Your task to perform on an android device: delete browsing data in the chrome app Image 0: 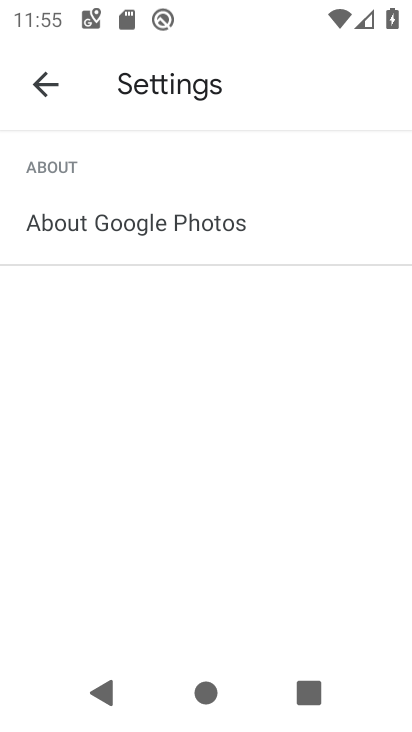
Step 0: press home button
Your task to perform on an android device: delete browsing data in the chrome app Image 1: 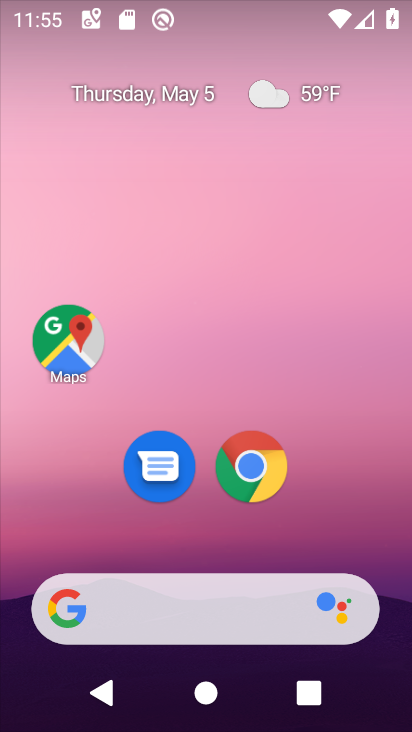
Step 1: click (269, 470)
Your task to perform on an android device: delete browsing data in the chrome app Image 2: 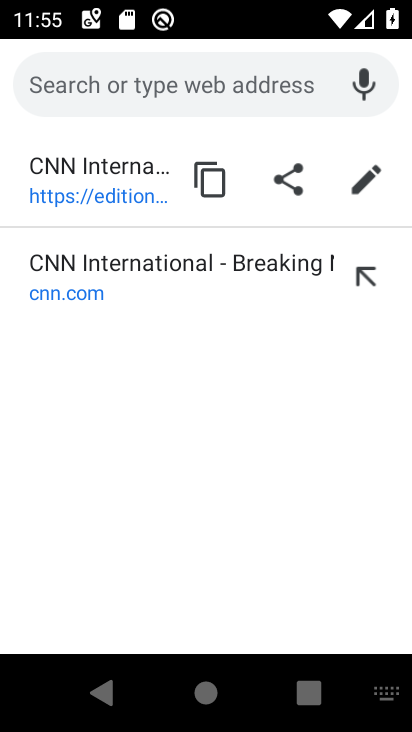
Step 2: press back button
Your task to perform on an android device: delete browsing data in the chrome app Image 3: 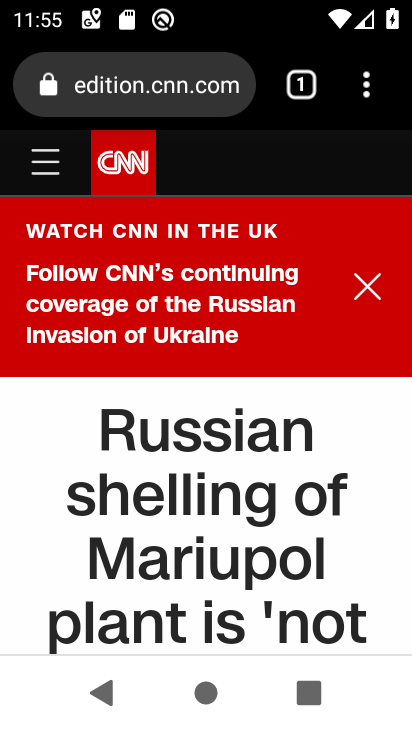
Step 3: drag from (364, 121) to (189, 486)
Your task to perform on an android device: delete browsing data in the chrome app Image 4: 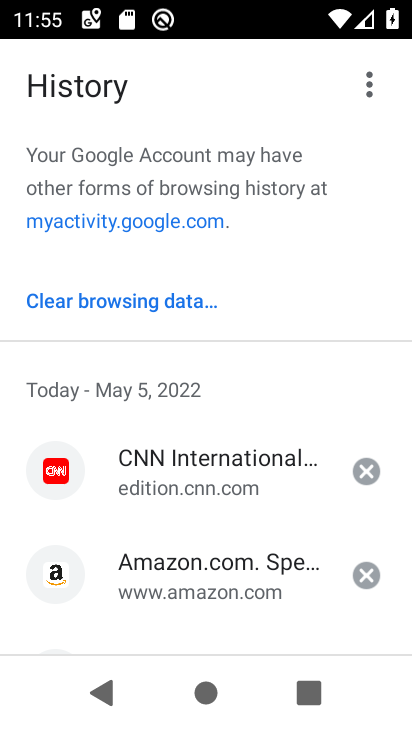
Step 4: click (164, 304)
Your task to perform on an android device: delete browsing data in the chrome app Image 5: 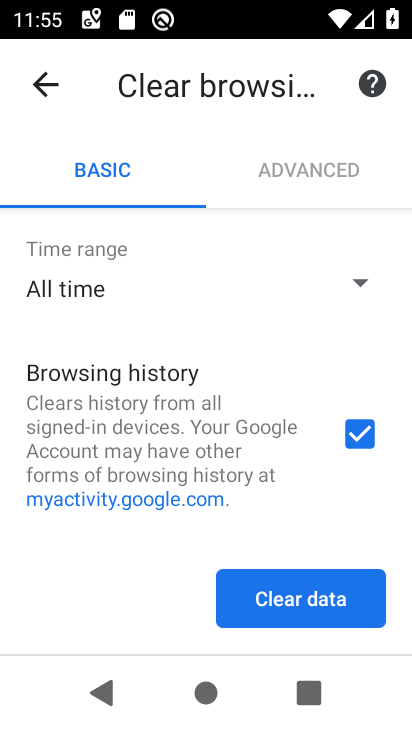
Step 5: click (316, 604)
Your task to perform on an android device: delete browsing data in the chrome app Image 6: 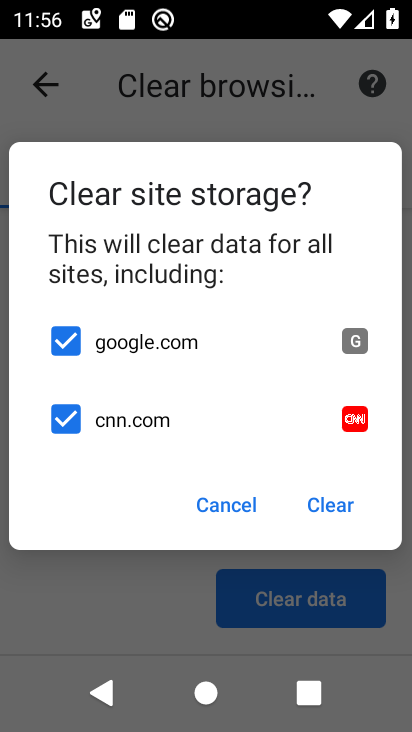
Step 6: click (326, 508)
Your task to perform on an android device: delete browsing data in the chrome app Image 7: 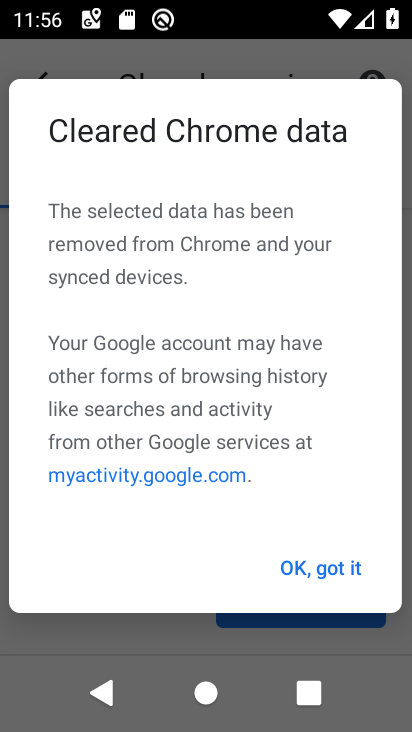
Step 7: click (337, 562)
Your task to perform on an android device: delete browsing data in the chrome app Image 8: 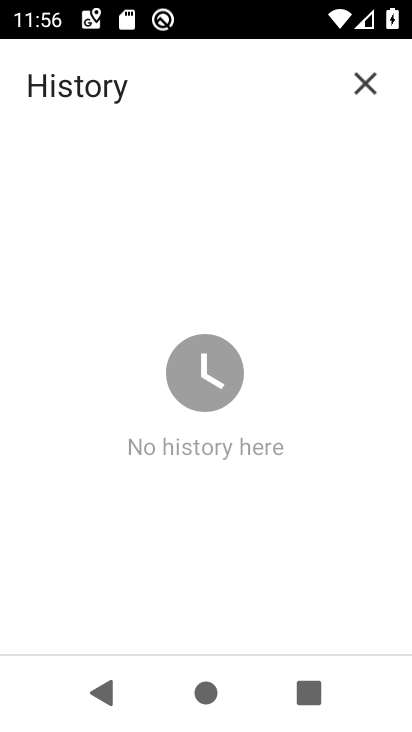
Step 8: task complete